Your task to perform on an android device: Go to Wikipedia Image 0: 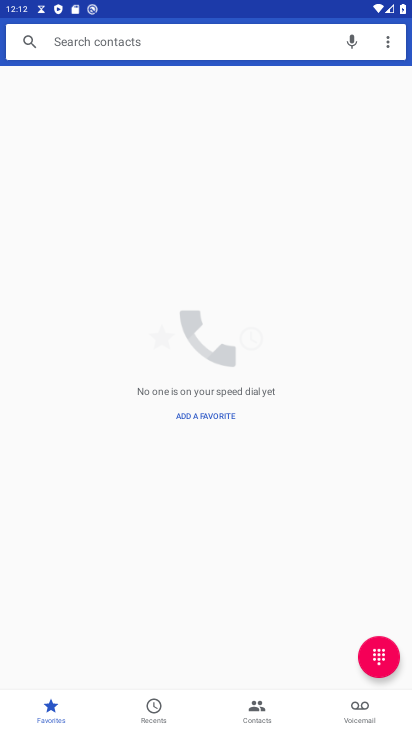
Step 0: press home button
Your task to perform on an android device: Go to Wikipedia Image 1: 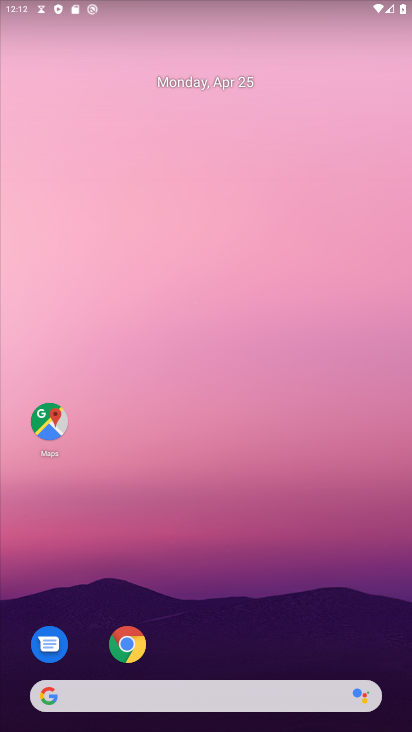
Step 1: click (129, 646)
Your task to perform on an android device: Go to Wikipedia Image 2: 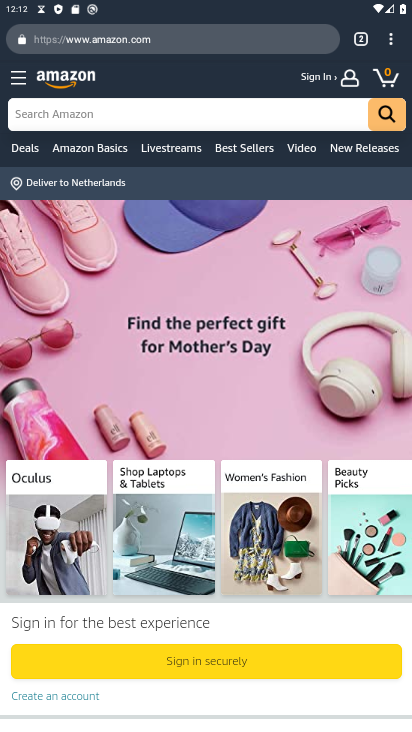
Step 2: click (131, 47)
Your task to perform on an android device: Go to Wikipedia Image 3: 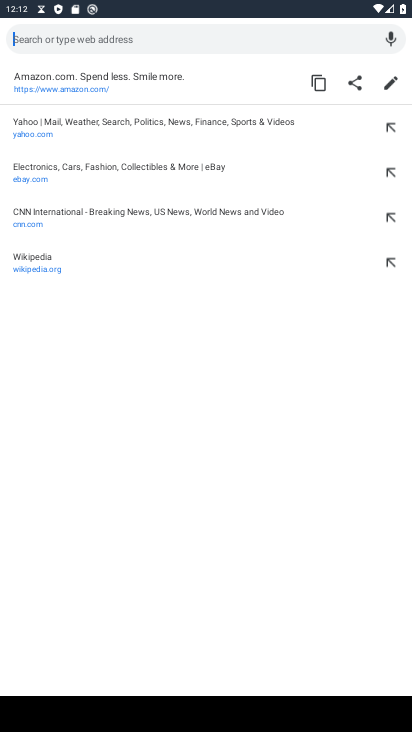
Step 3: click (28, 259)
Your task to perform on an android device: Go to Wikipedia Image 4: 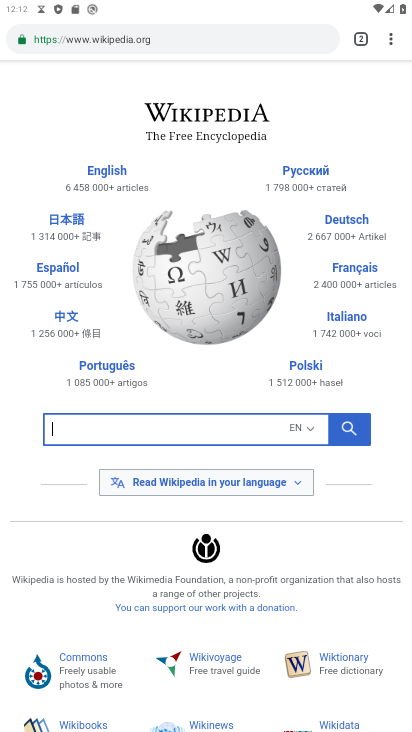
Step 4: task complete